Your task to perform on an android device: change timer sound Image 0: 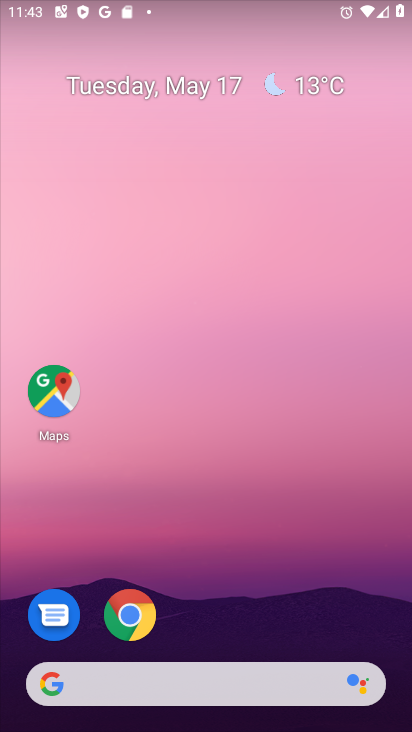
Step 0: drag from (207, 529) to (236, 72)
Your task to perform on an android device: change timer sound Image 1: 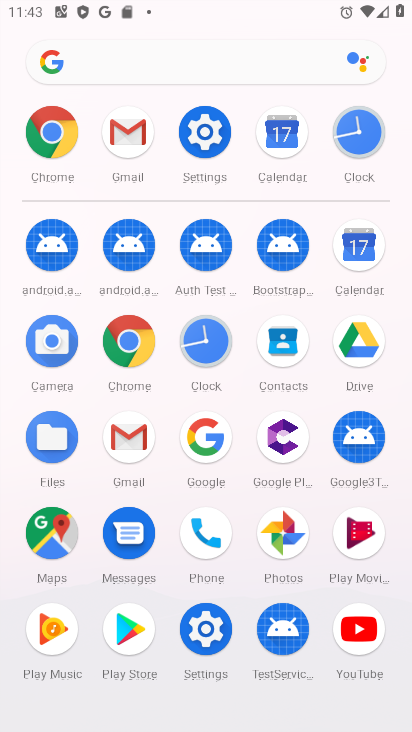
Step 1: click (353, 136)
Your task to perform on an android device: change timer sound Image 2: 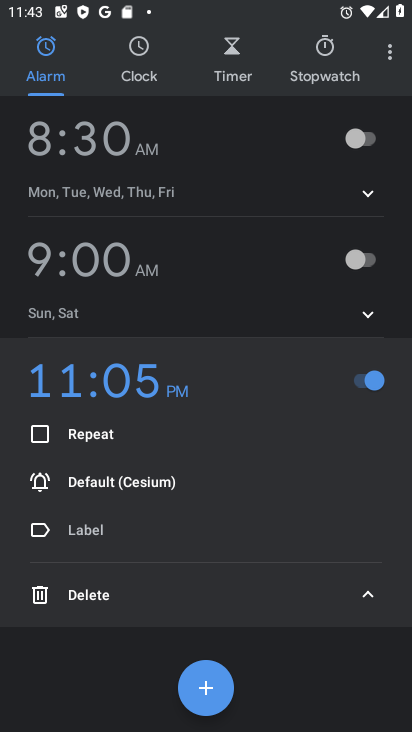
Step 2: click (392, 58)
Your task to perform on an android device: change timer sound Image 3: 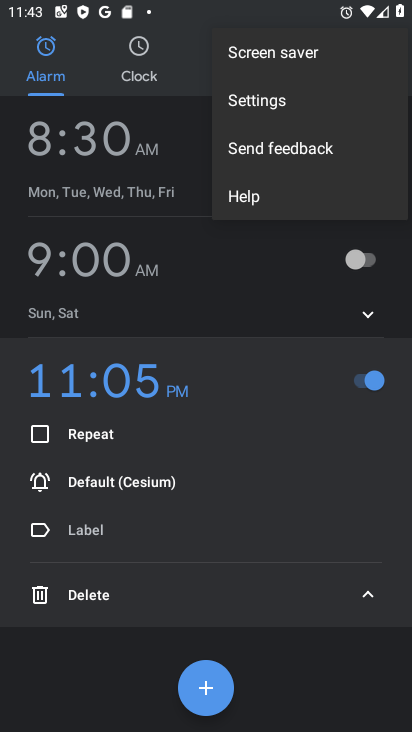
Step 3: click (262, 111)
Your task to perform on an android device: change timer sound Image 4: 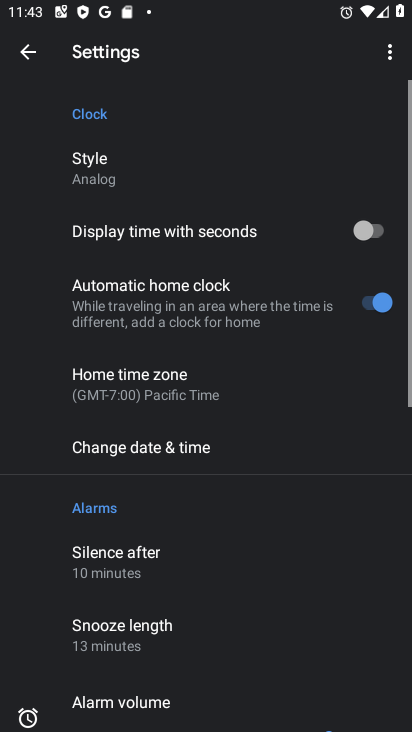
Step 4: drag from (268, 642) to (291, 218)
Your task to perform on an android device: change timer sound Image 5: 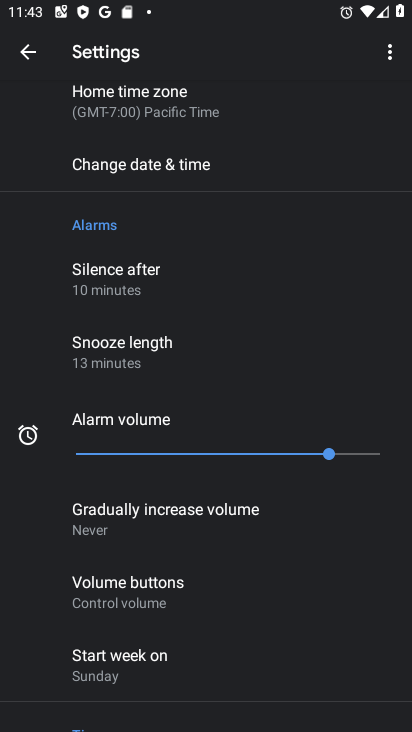
Step 5: drag from (260, 593) to (281, 287)
Your task to perform on an android device: change timer sound Image 6: 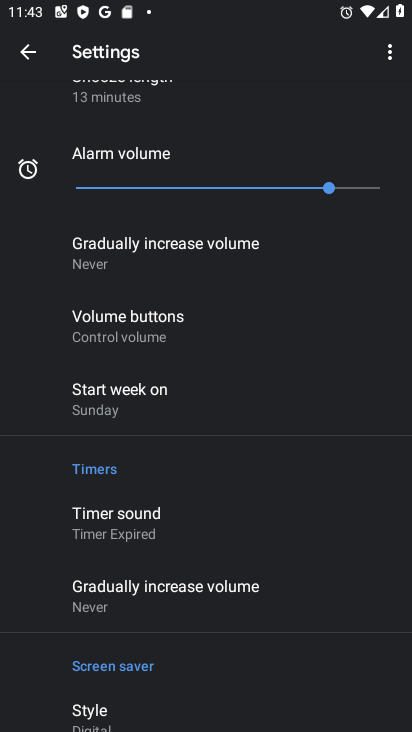
Step 6: click (138, 519)
Your task to perform on an android device: change timer sound Image 7: 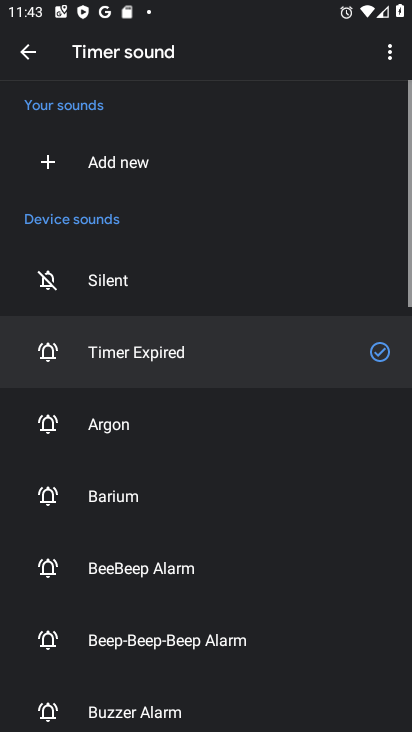
Step 7: click (125, 418)
Your task to perform on an android device: change timer sound Image 8: 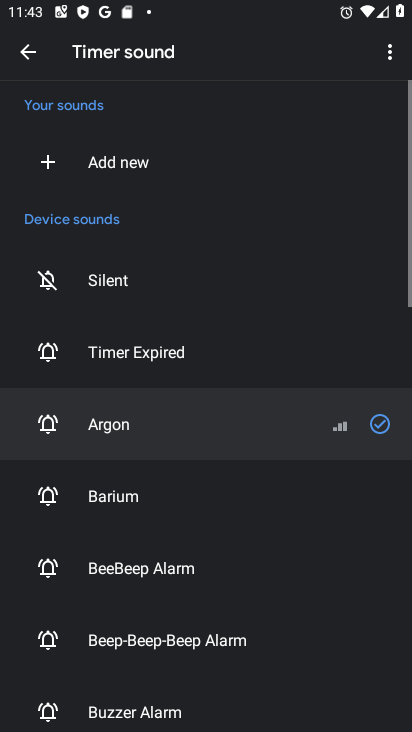
Step 8: task complete